Your task to perform on an android device: Open battery settings Image 0: 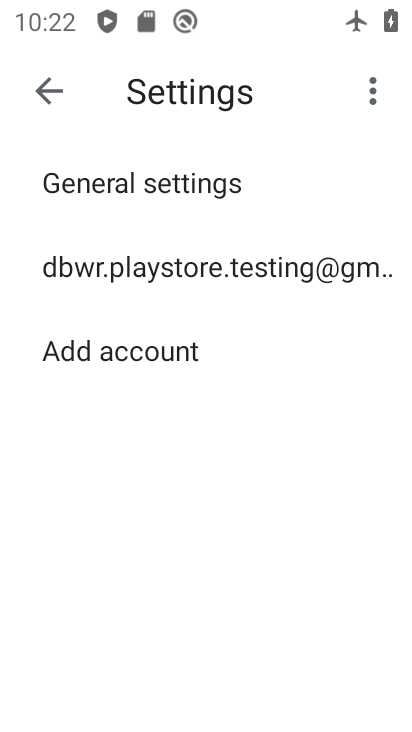
Step 0: press home button
Your task to perform on an android device: Open battery settings Image 1: 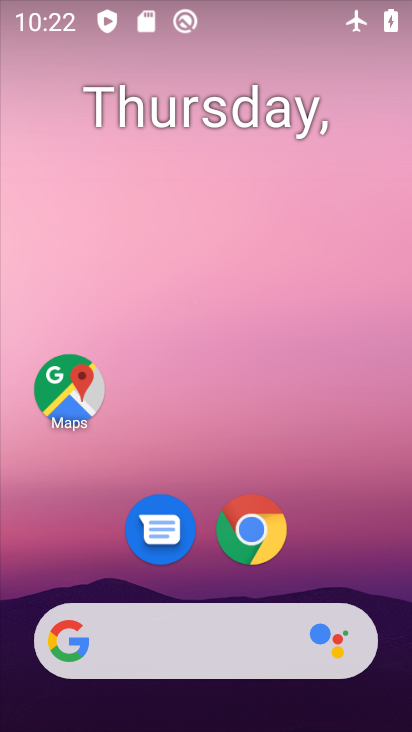
Step 1: drag from (303, 554) to (297, 134)
Your task to perform on an android device: Open battery settings Image 2: 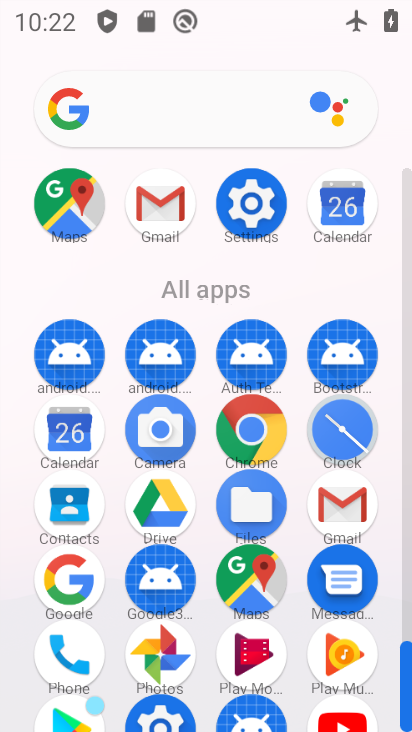
Step 2: click (250, 212)
Your task to perform on an android device: Open battery settings Image 3: 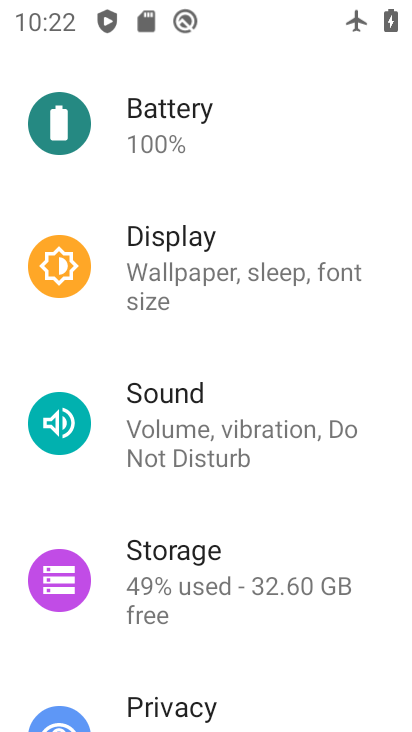
Step 3: drag from (177, 616) to (157, 701)
Your task to perform on an android device: Open battery settings Image 4: 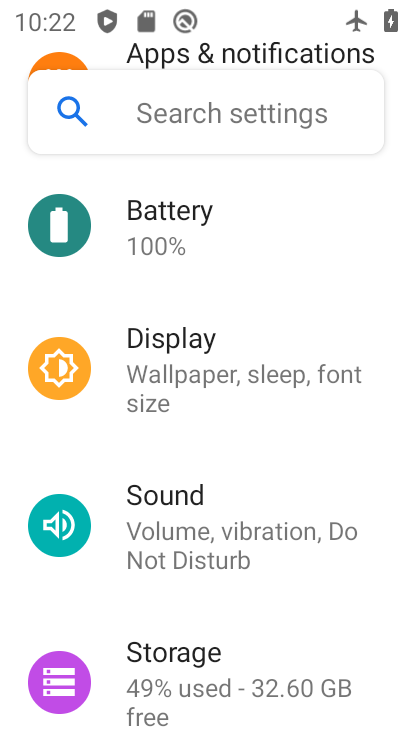
Step 4: click (156, 222)
Your task to perform on an android device: Open battery settings Image 5: 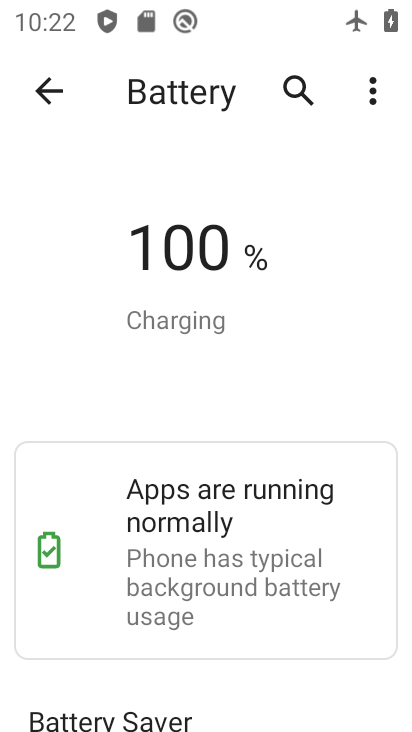
Step 5: task complete